Your task to perform on an android device: find snoozed emails in the gmail app Image 0: 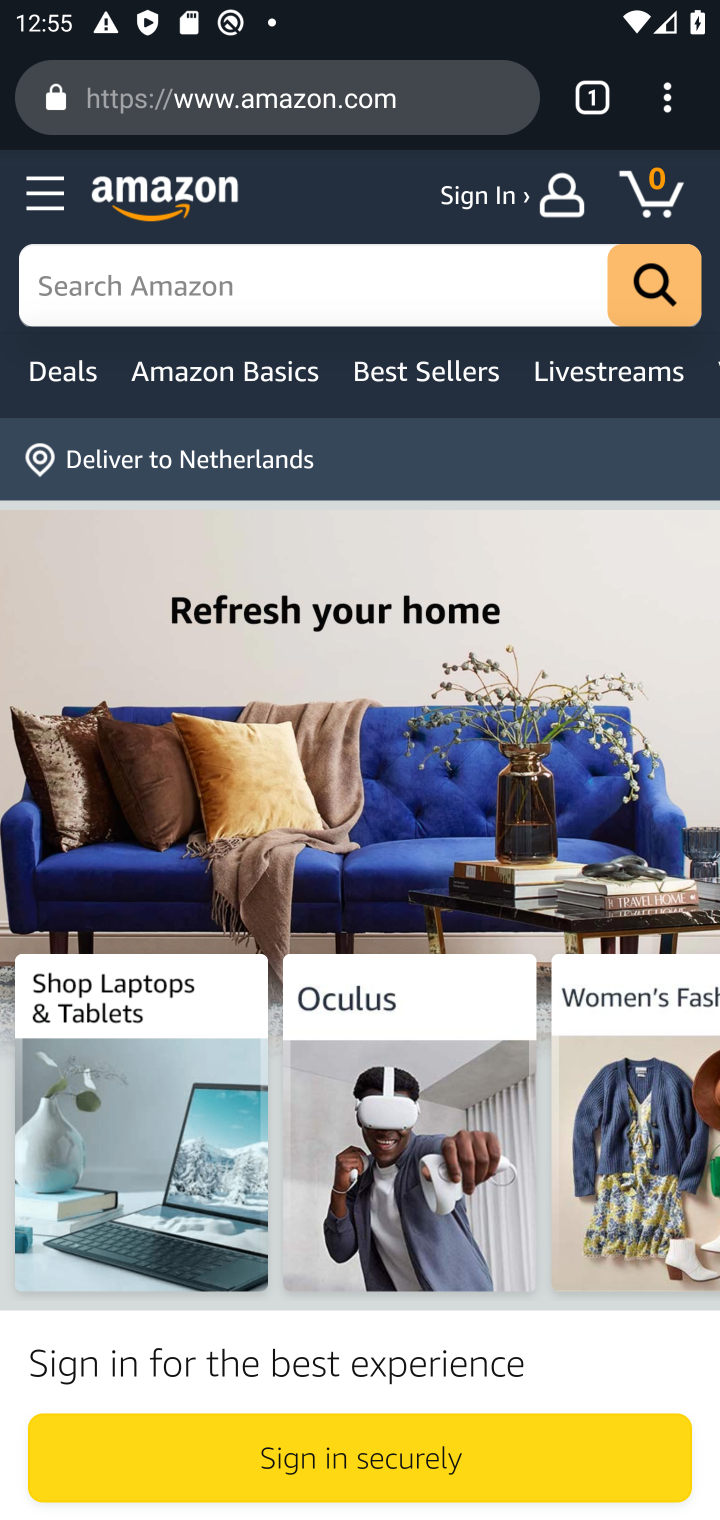
Step 0: press home button
Your task to perform on an android device: find snoozed emails in the gmail app Image 1: 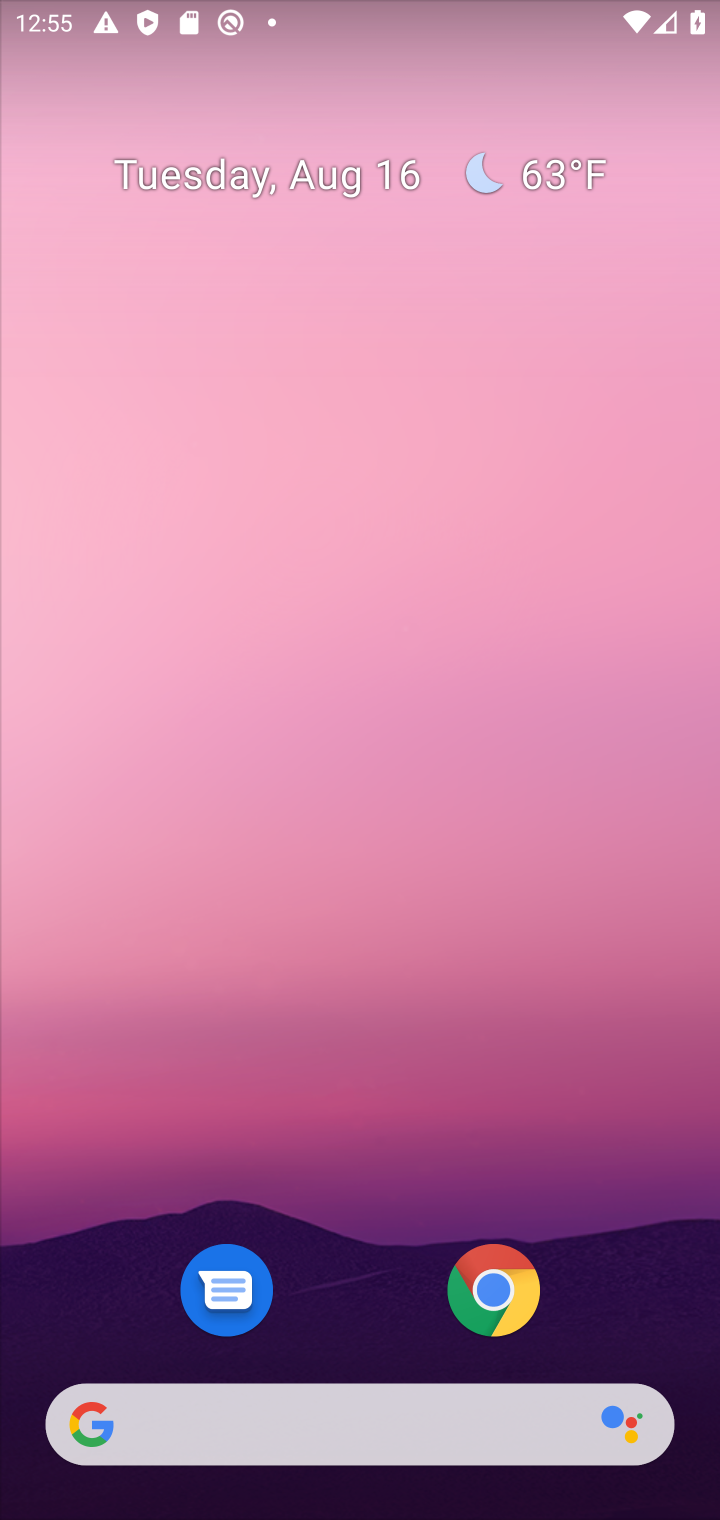
Step 1: drag from (293, 667) to (447, 270)
Your task to perform on an android device: find snoozed emails in the gmail app Image 2: 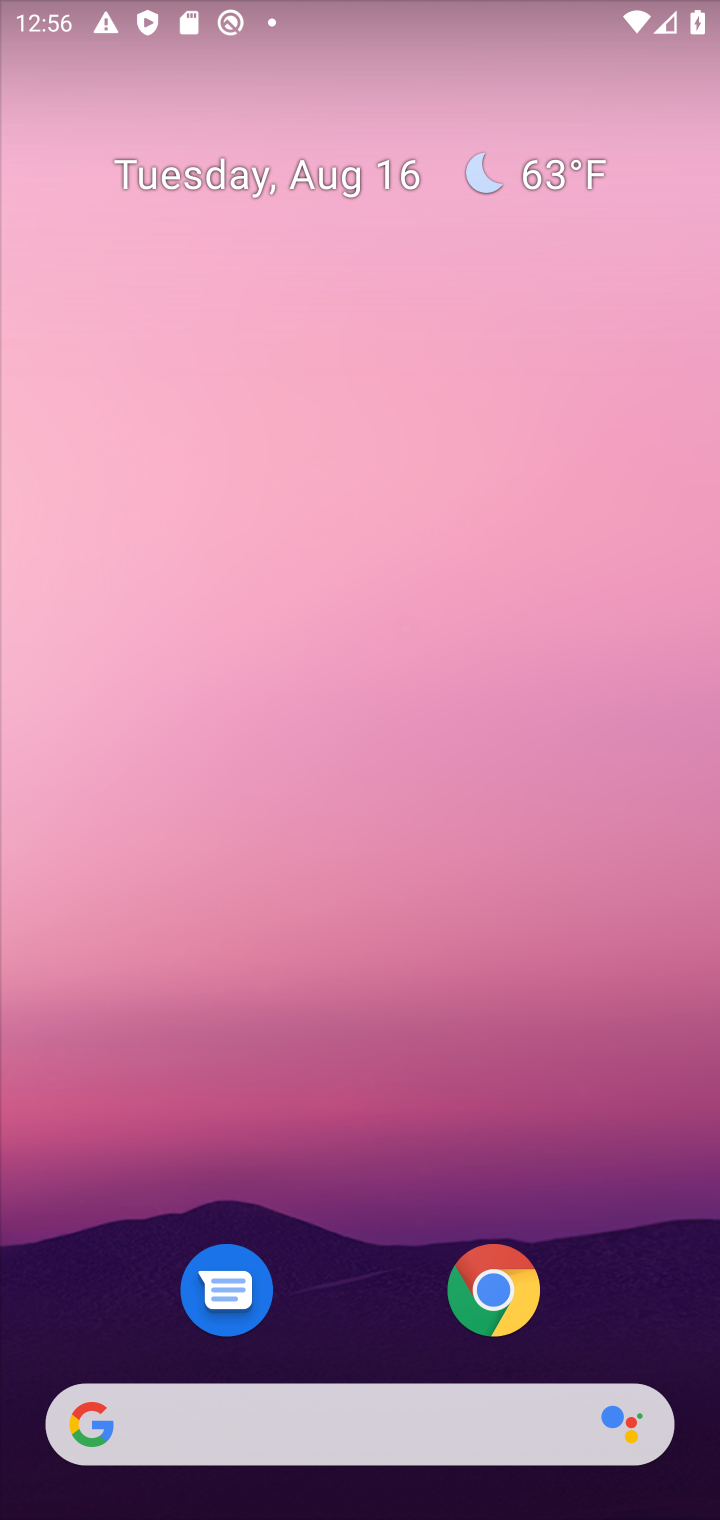
Step 2: drag from (252, 674) to (445, 108)
Your task to perform on an android device: find snoozed emails in the gmail app Image 3: 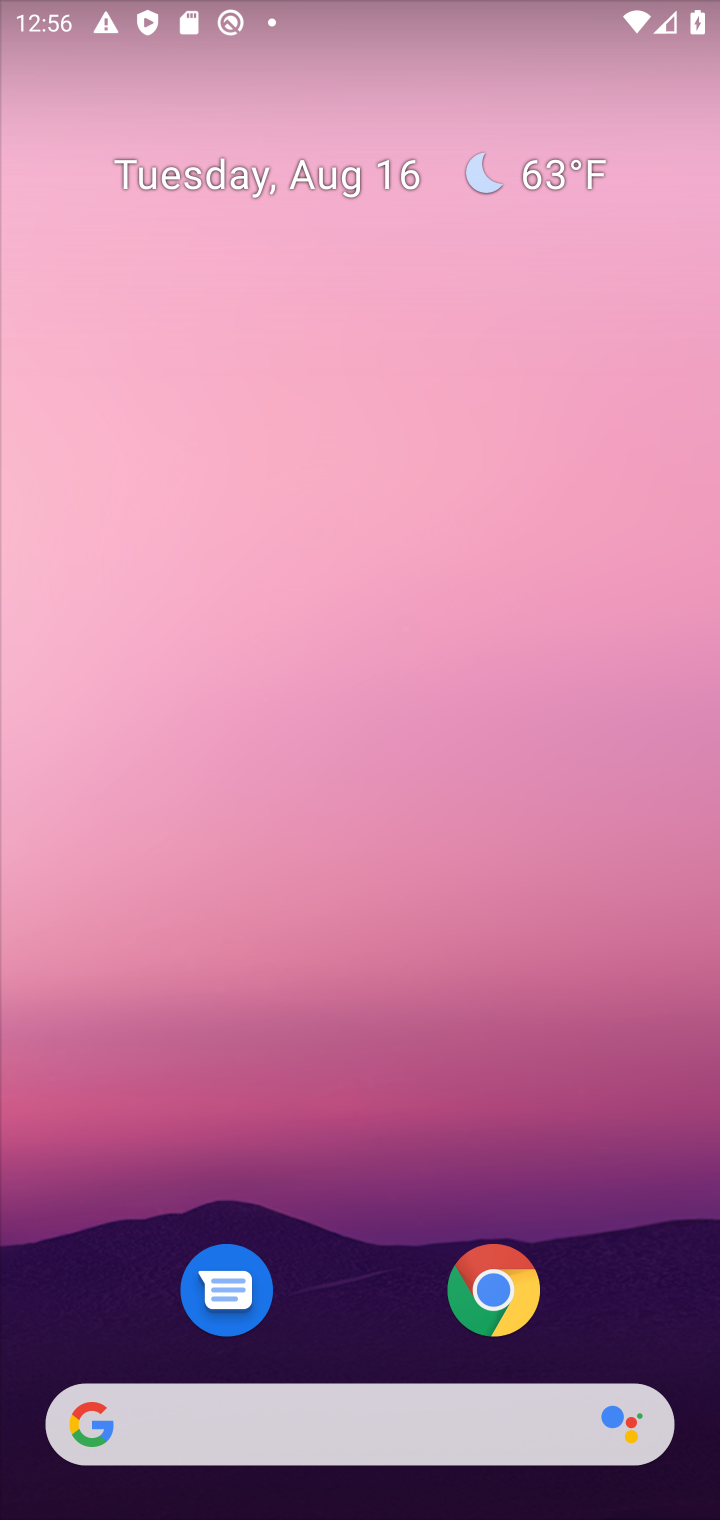
Step 3: drag from (83, 1054) to (381, 246)
Your task to perform on an android device: find snoozed emails in the gmail app Image 4: 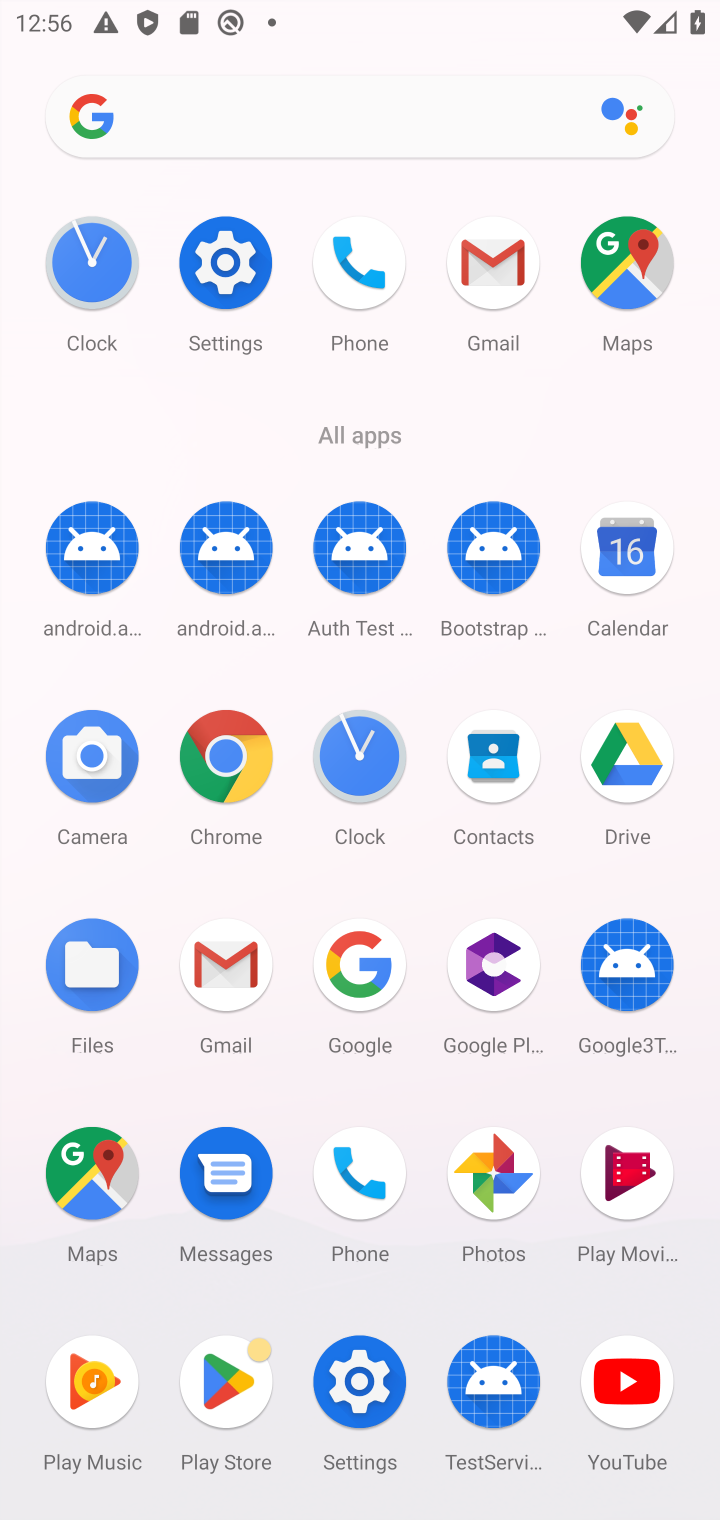
Step 4: click (508, 284)
Your task to perform on an android device: find snoozed emails in the gmail app Image 5: 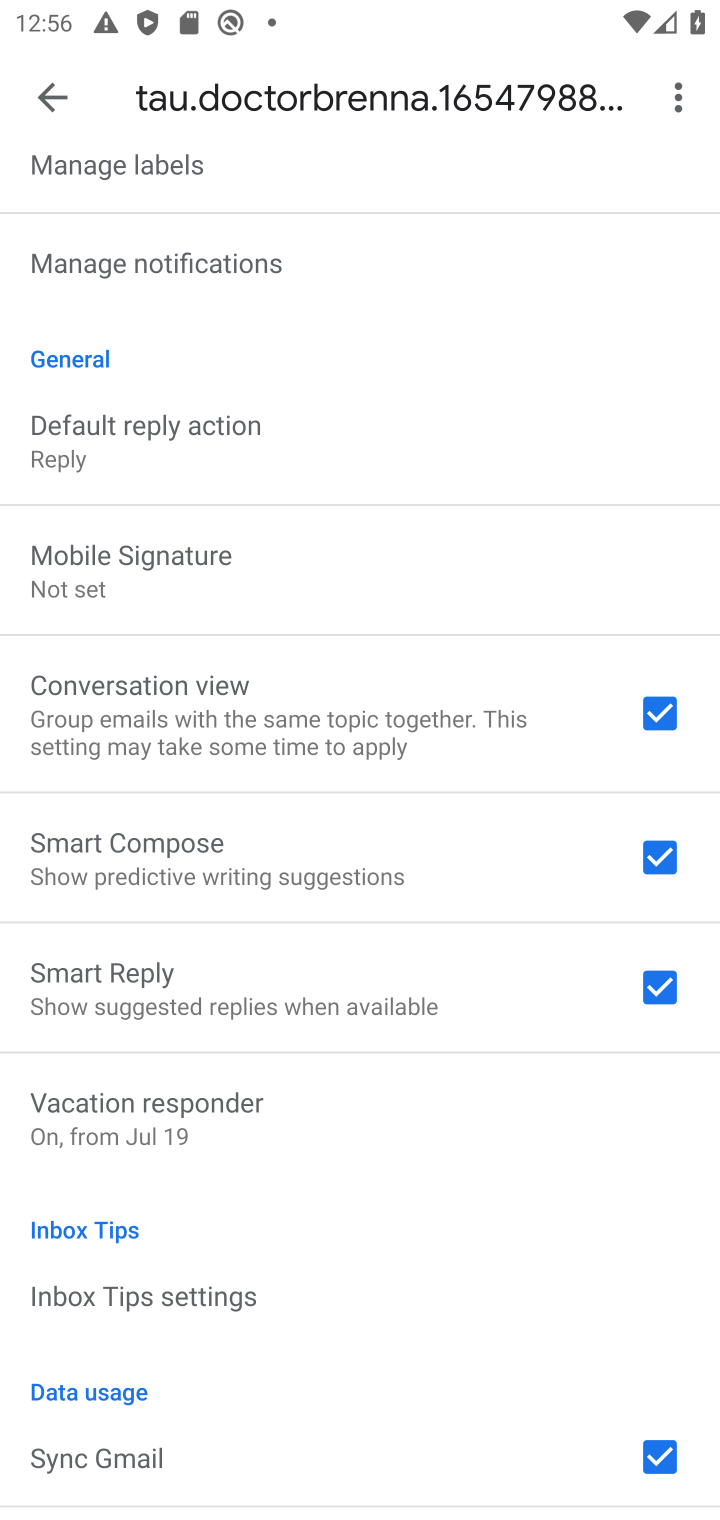
Step 5: click (57, 111)
Your task to perform on an android device: find snoozed emails in the gmail app Image 6: 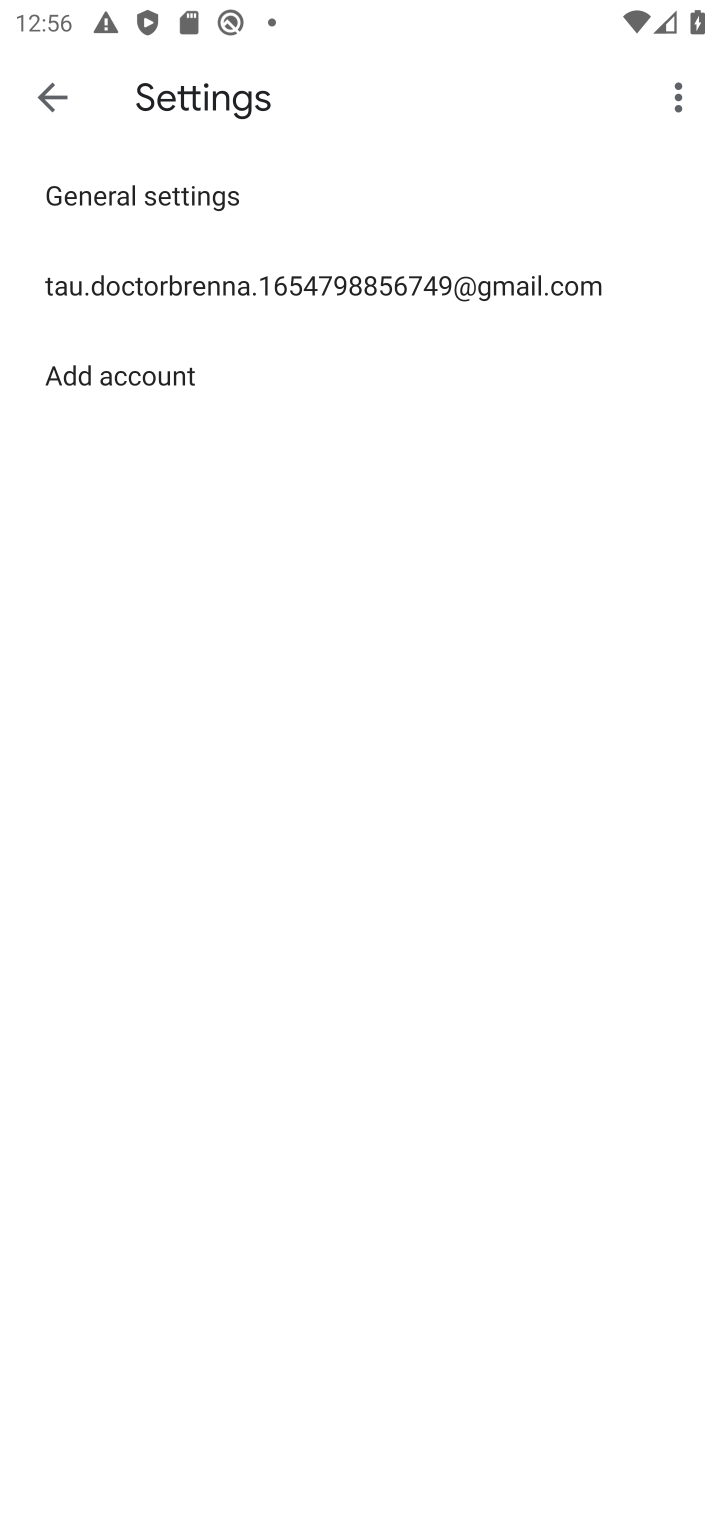
Step 6: click (58, 93)
Your task to perform on an android device: find snoozed emails in the gmail app Image 7: 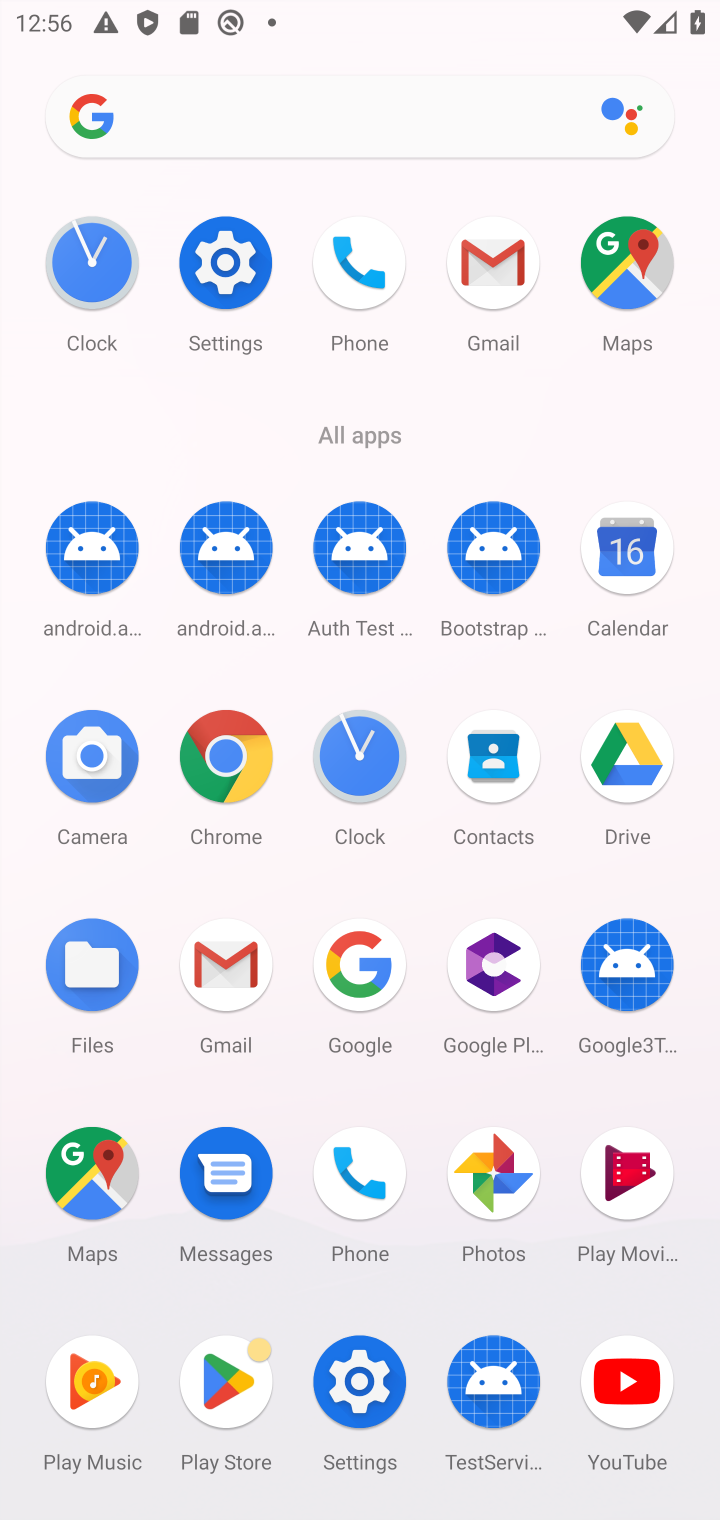
Step 7: click (471, 280)
Your task to perform on an android device: find snoozed emails in the gmail app Image 8: 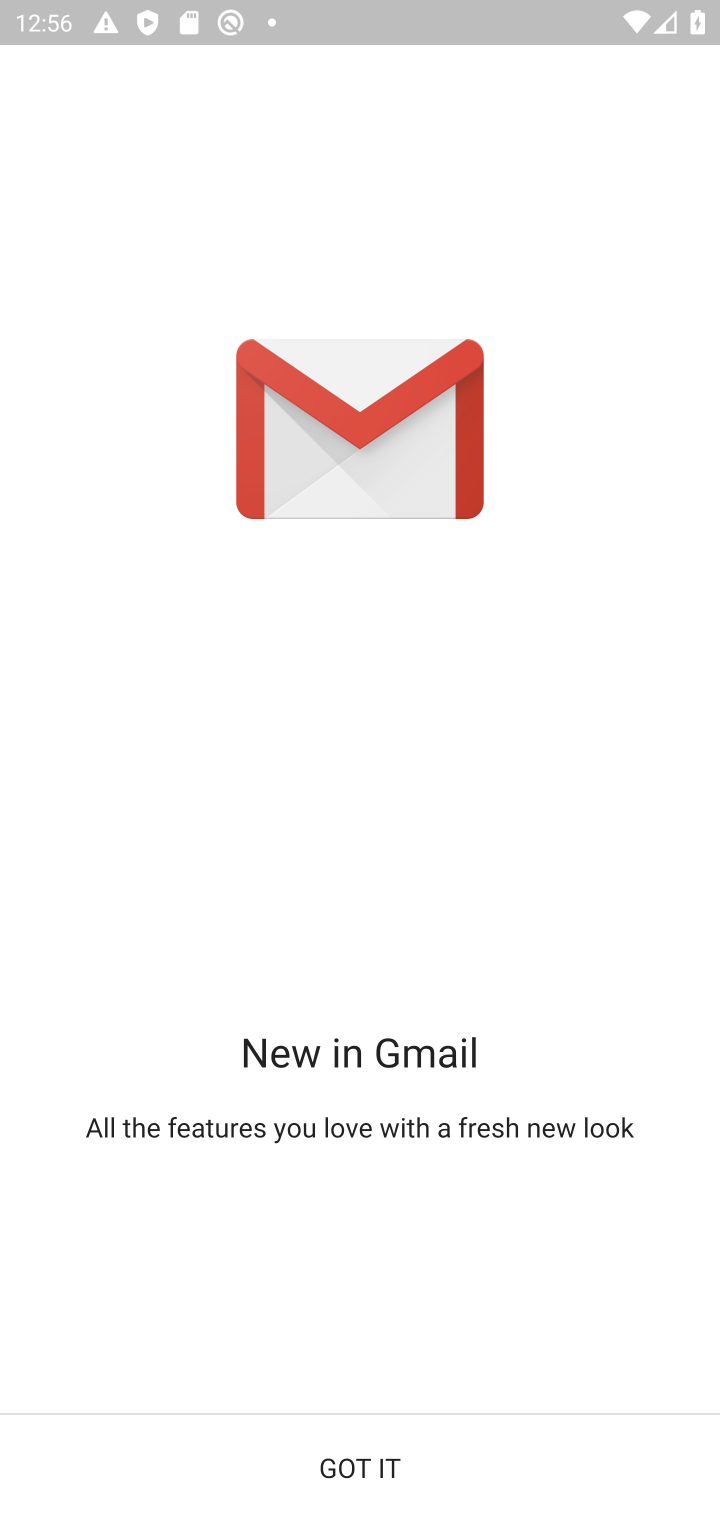
Step 8: click (355, 1478)
Your task to perform on an android device: find snoozed emails in the gmail app Image 9: 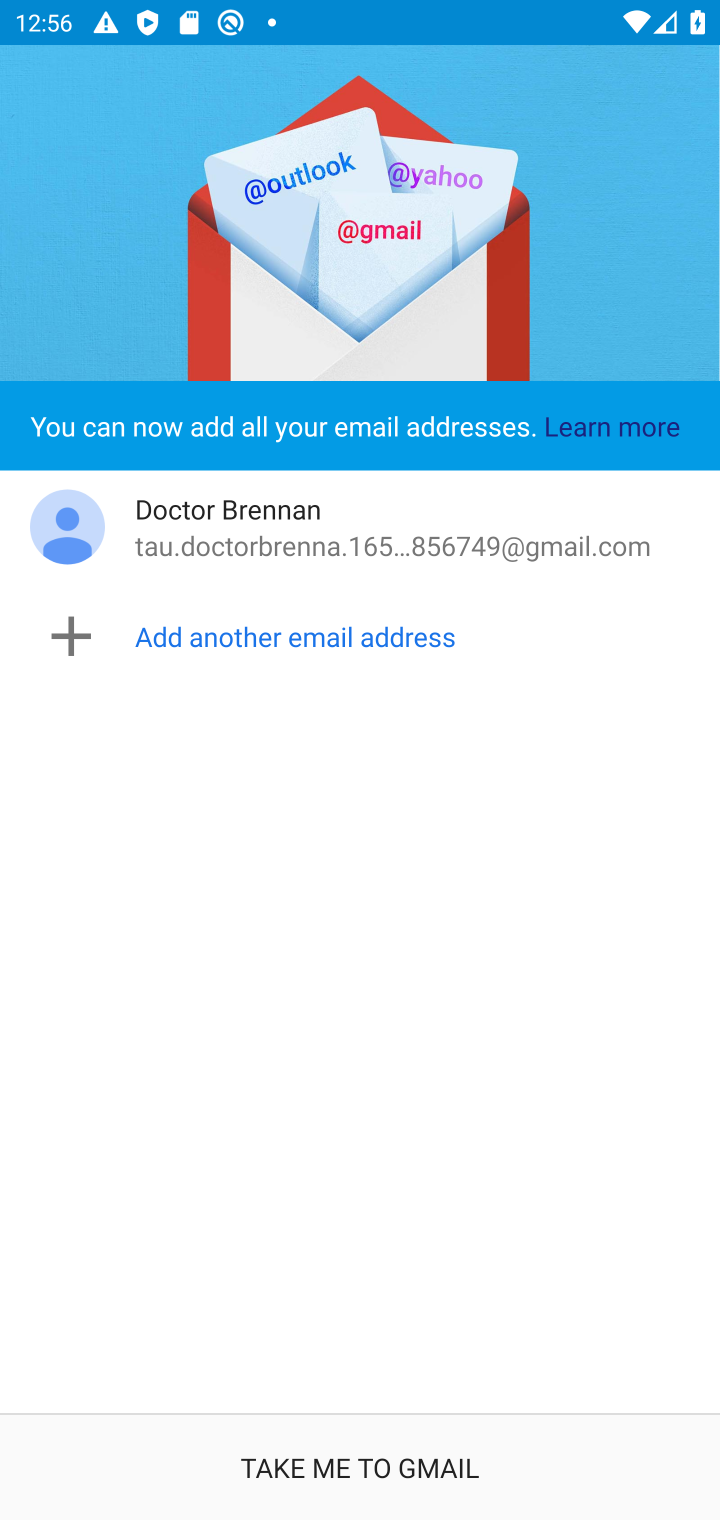
Step 9: click (357, 1478)
Your task to perform on an android device: find snoozed emails in the gmail app Image 10: 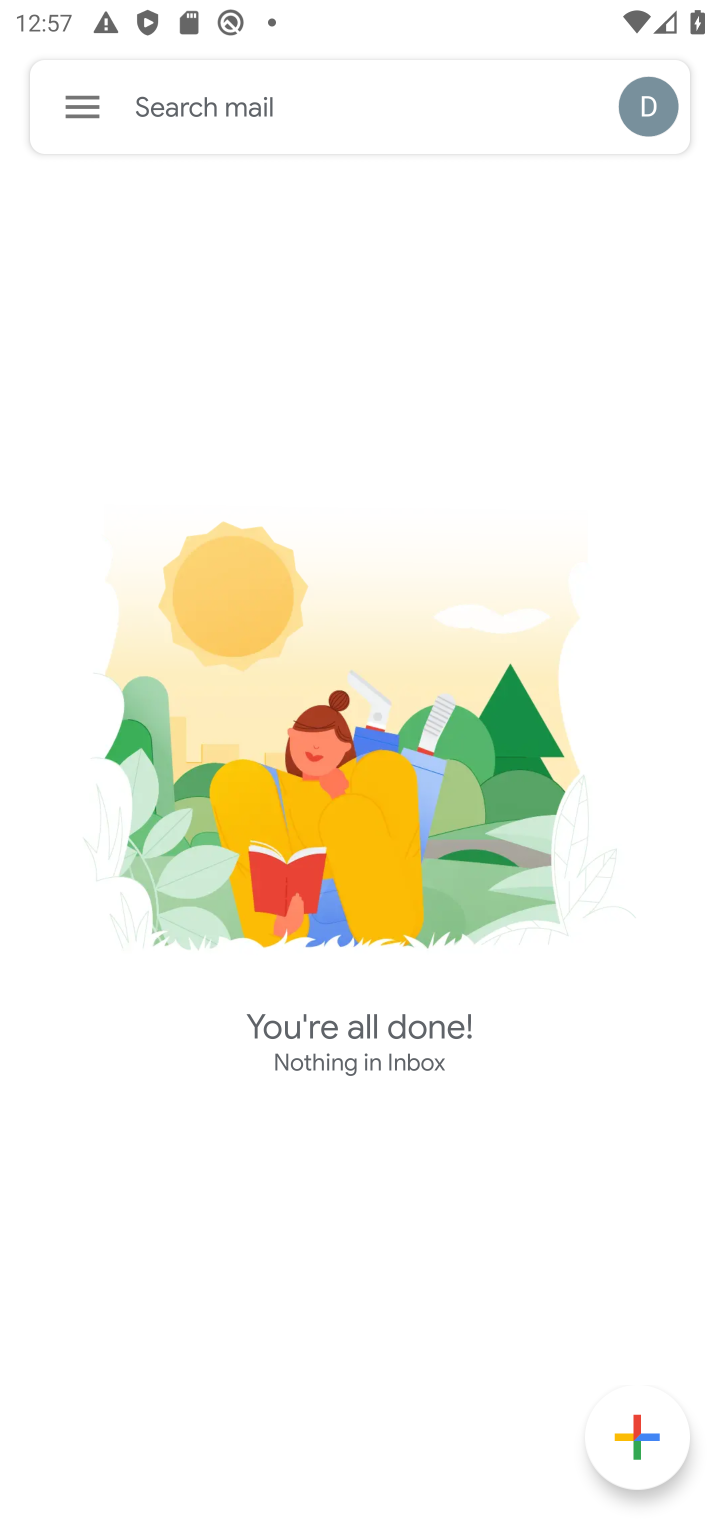
Step 10: click (43, 111)
Your task to perform on an android device: find snoozed emails in the gmail app Image 11: 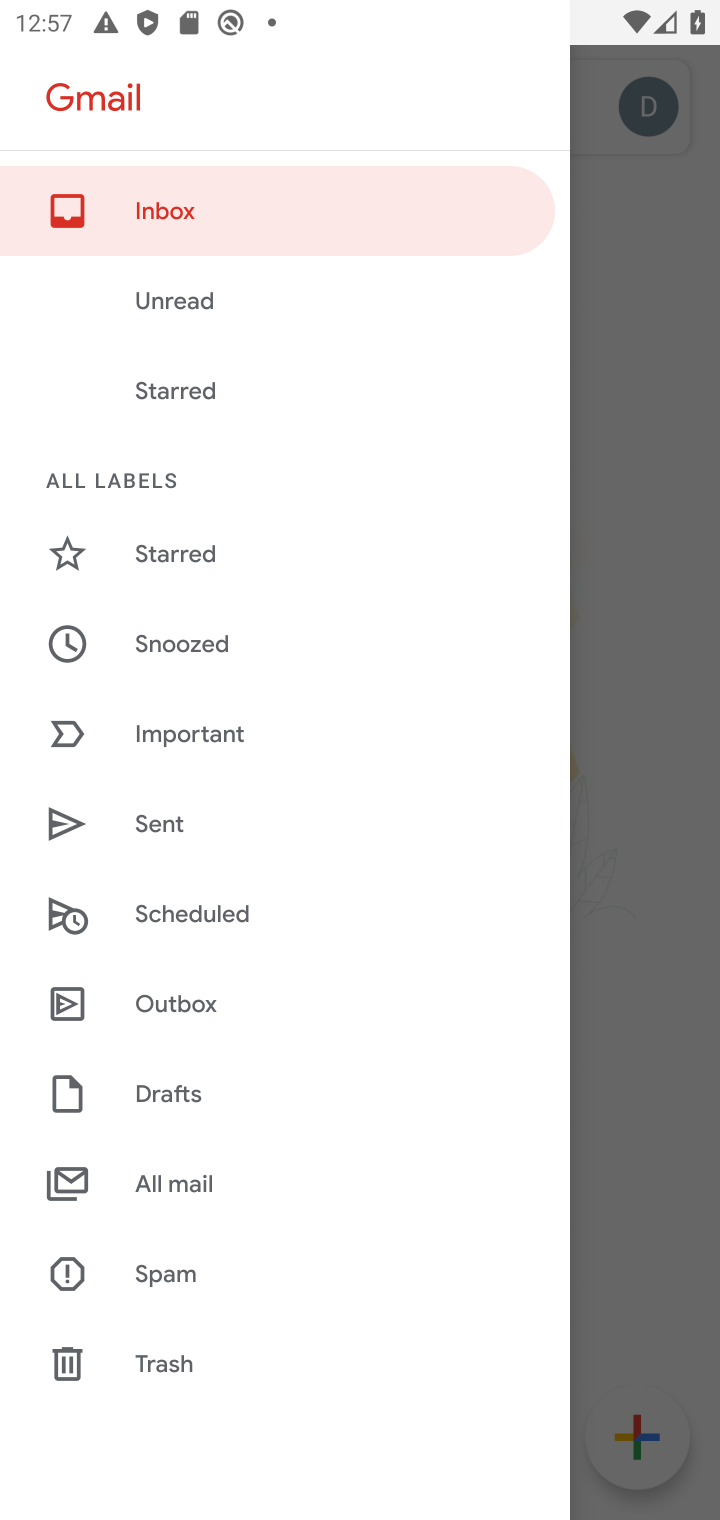
Step 11: click (162, 650)
Your task to perform on an android device: find snoozed emails in the gmail app Image 12: 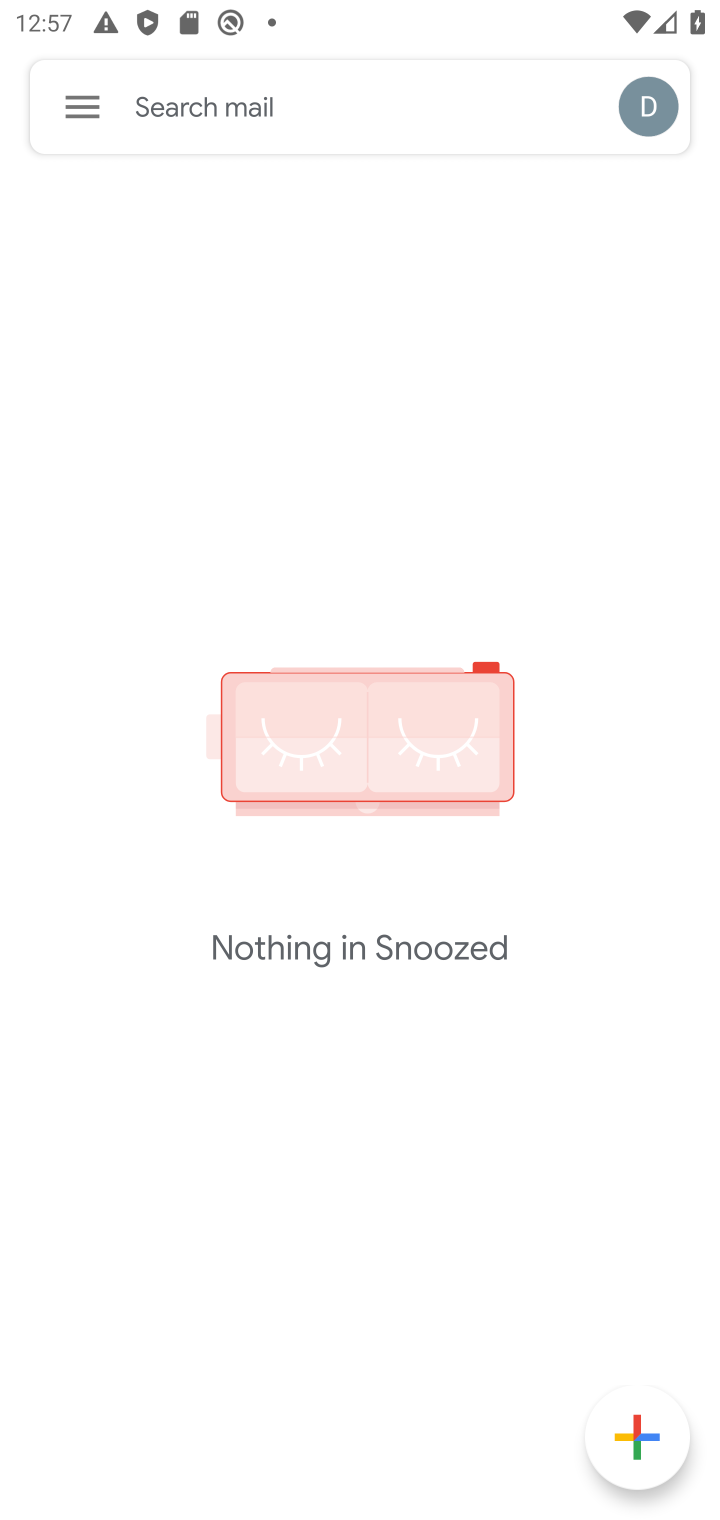
Step 12: task complete